Your task to perform on an android device: Go to calendar. Show me events next week Image 0: 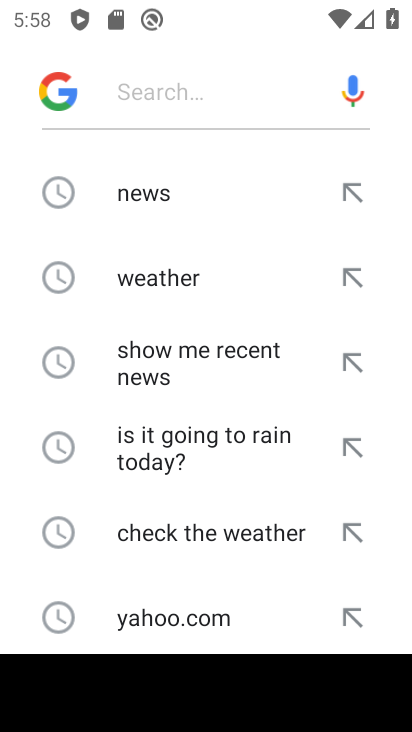
Step 0: press home button
Your task to perform on an android device: Go to calendar. Show me events next week Image 1: 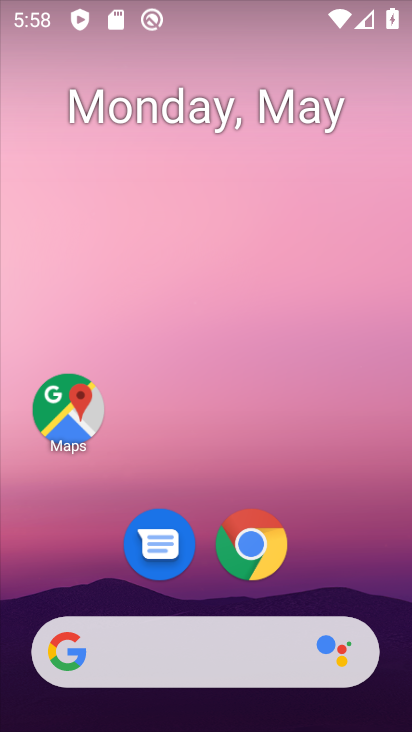
Step 1: drag from (342, 590) to (166, 11)
Your task to perform on an android device: Go to calendar. Show me events next week Image 2: 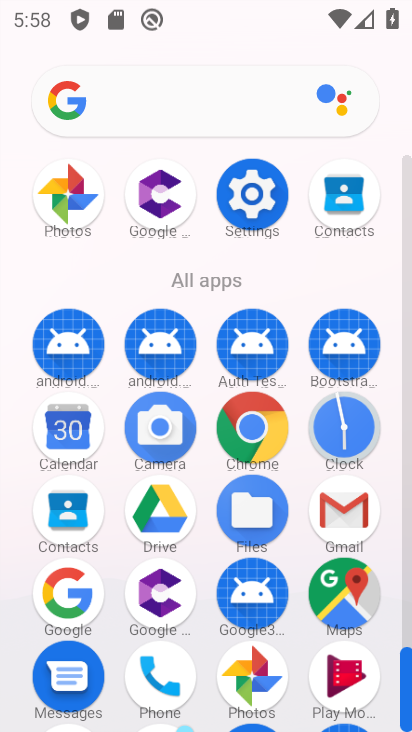
Step 2: click (62, 423)
Your task to perform on an android device: Go to calendar. Show me events next week Image 3: 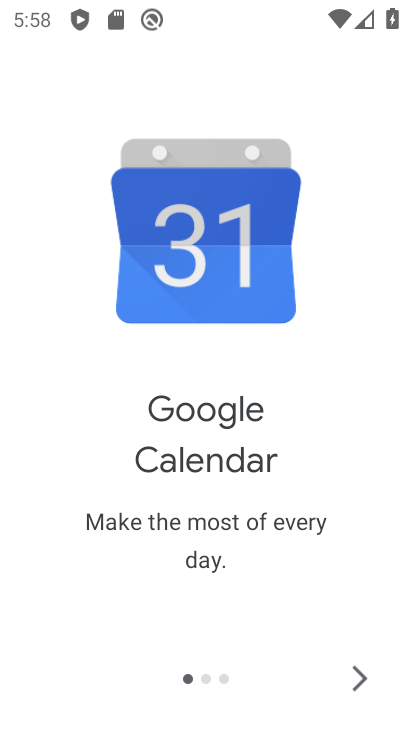
Step 3: click (351, 675)
Your task to perform on an android device: Go to calendar. Show me events next week Image 4: 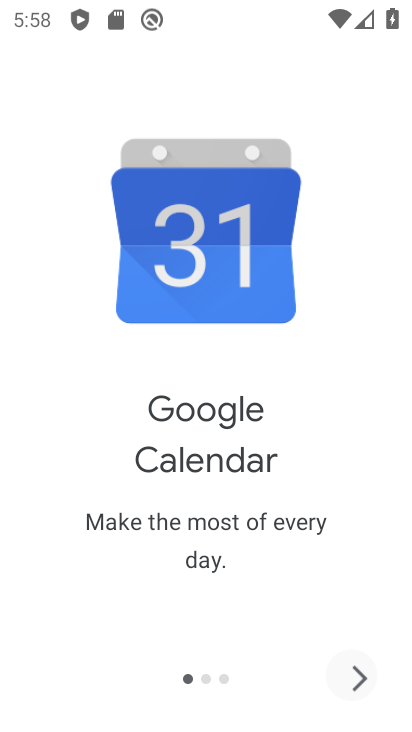
Step 4: click (346, 669)
Your task to perform on an android device: Go to calendar. Show me events next week Image 5: 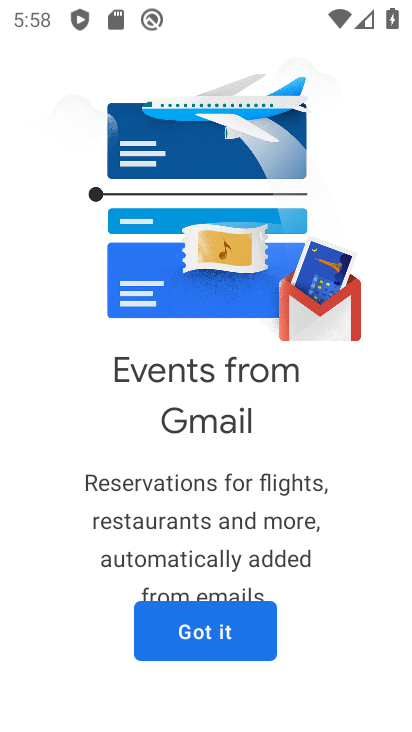
Step 5: click (261, 637)
Your task to perform on an android device: Go to calendar. Show me events next week Image 6: 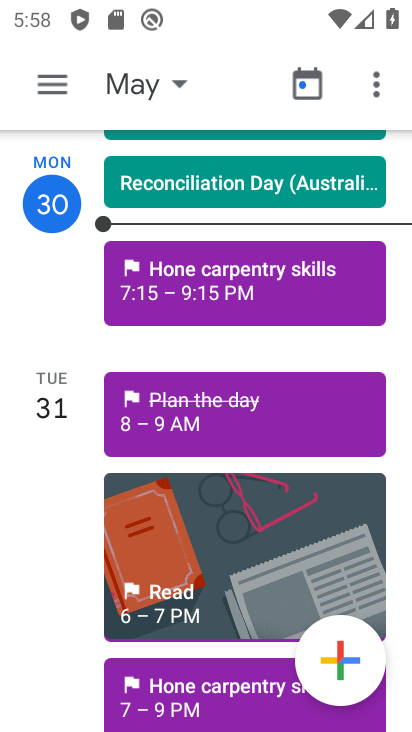
Step 6: click (178, 83)
Your task to perform on an android device: Go to calendar. Show me events next week Image 7: 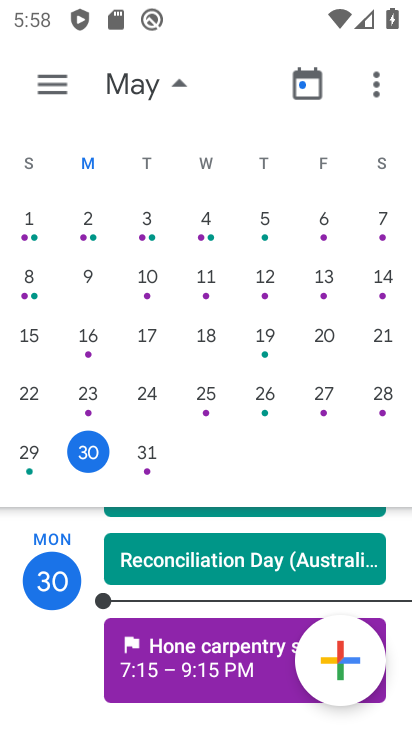
Step 7: drag from (354, 308) to (0, 309)
Your task to perform on an android device: Go to calendar. Show me events next week Image 8: 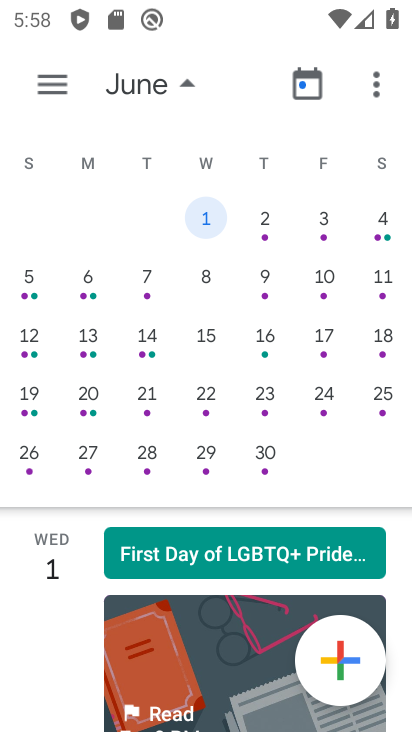
Step 8: click (26, 268)
Your task to perform on an android device: Go to calendar. Show me events next week Image 9: 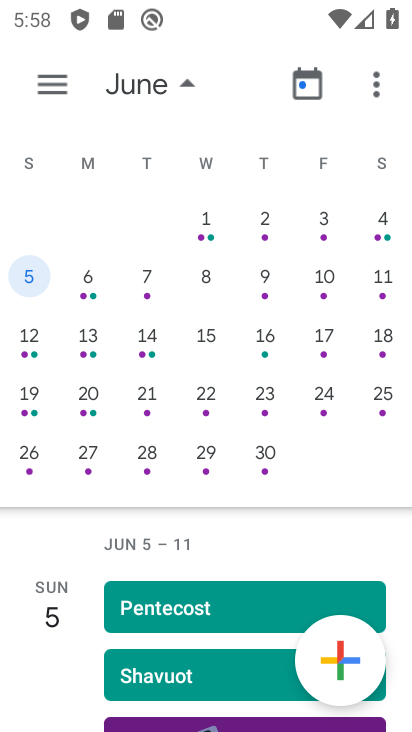
Step 9: click (59, 86)
Your task to perform on an android device: Go to calendar. Show me events next week Image 10: 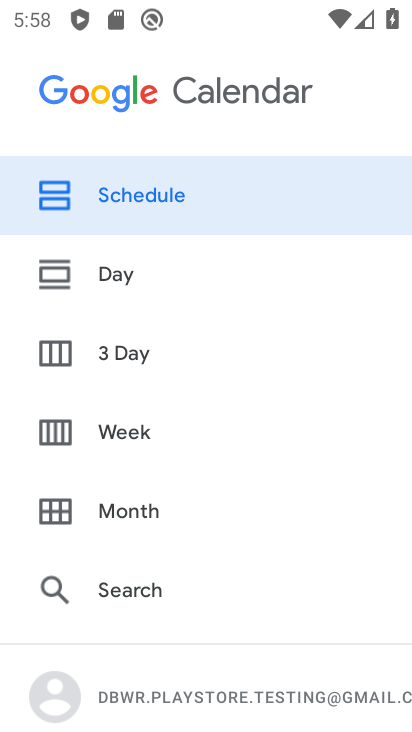
Step 10: click (153, 433)
Your task to perform on an android device: Go to calendar. Show me events next week Image 11: 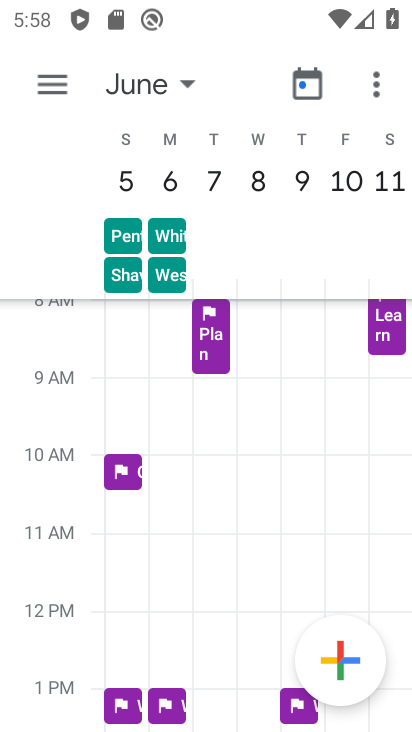
Step 11: task complete